Your task to perform on an android device: turn off javascript in the chrome app Image 0: 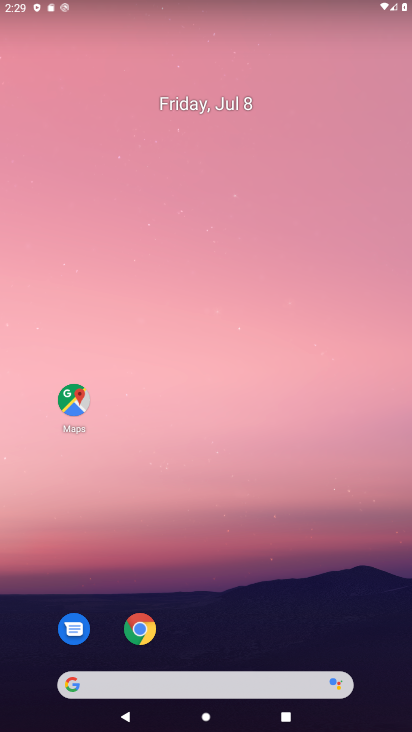
Step 0: click (141, 634)
Your task to perform on an android device: turn off javascript in the chrome app Image 1: 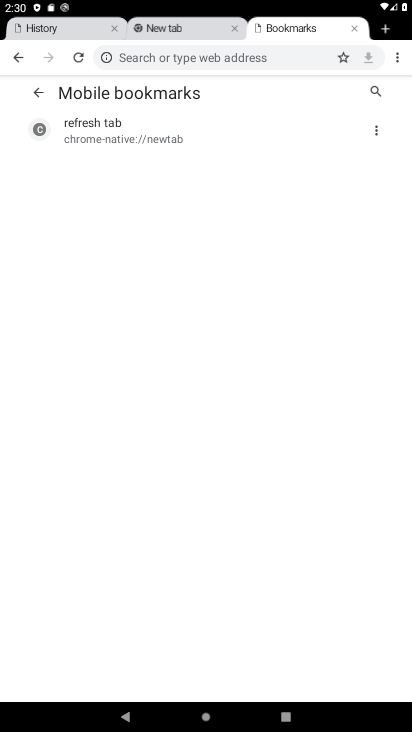
Step 1: click (400, 56)
Your task to perform on an android device: turn off javascript in the chrome app Image 2: 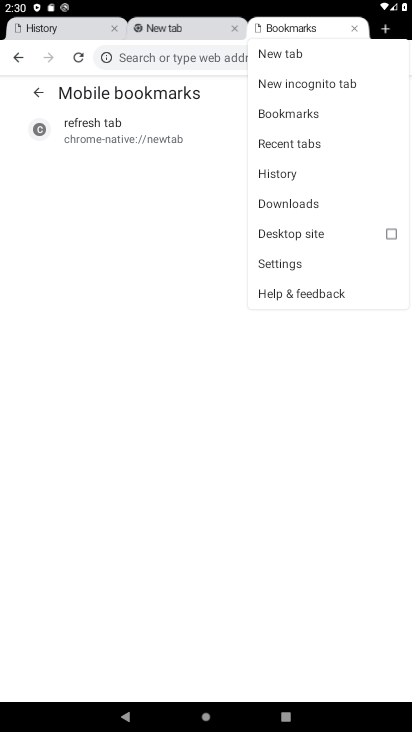
Step 2: click (271, 261)
Your task to perform on an android device: turn off javascript in the chrome app Image 3: 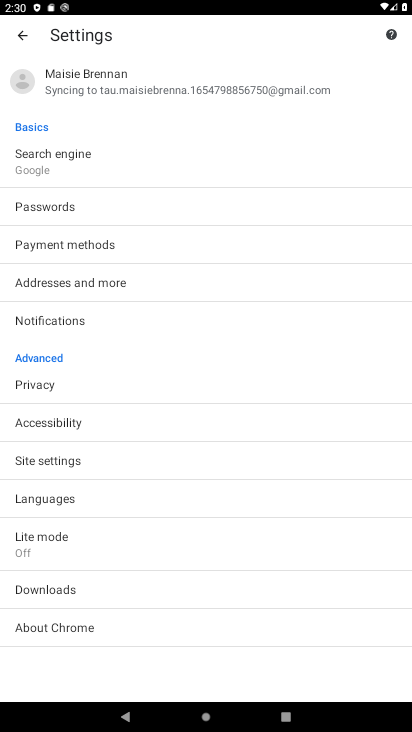
Step 3: click (44, 458)
Your task to perform on an android device: turn off javascript in the chrome app Image 4: 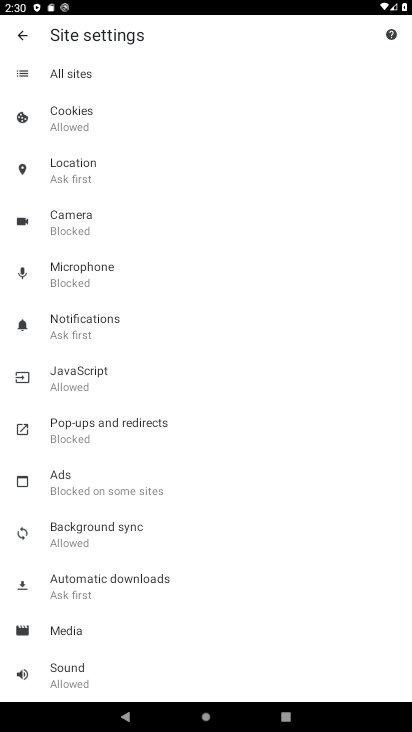
Step 4: click (87, 368)
Your task to perform on an android device: turn off javascript in the chrome app Image 5: 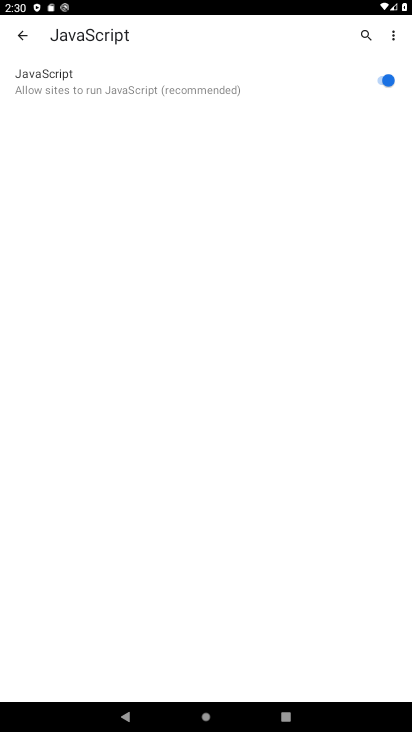
Step 5: click (391, 80)
Your task to perform on an android device: turn off javascript in the chrome app Image 6: 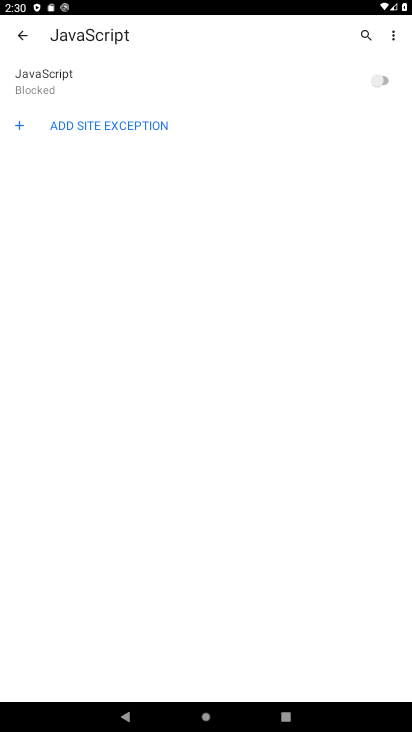
Step 6: task complete